Your task to perform on an android device: open app "Mercado Libre" (install if not already installed) and enter user name: "tolerating@yahoo.com" and password: "Kepler" Image 0: 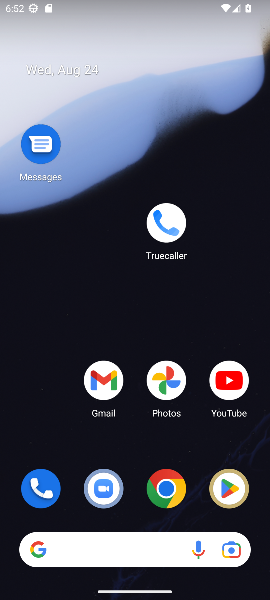
Step 0: drag from (136, 517) to (122, 127)
Your task to perform on an android device: open app "Mercado Libre" (install if not already installed) and enter user name: "tolerating@yahoo.com" and password: "Kepler" Image 1: 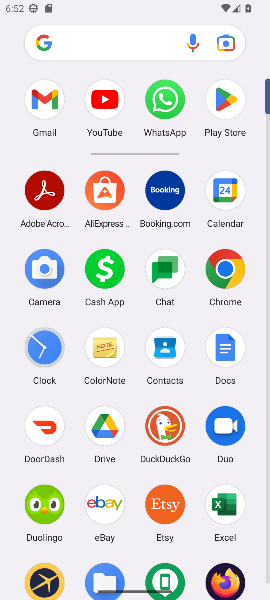
Step 1: click (211, 100)
Your task to perform on an android device: open app "Mercado Libre" (install if not already installed) and enter user name: "tolerating@yahoo.com" and password: "Kepler" Image 2: 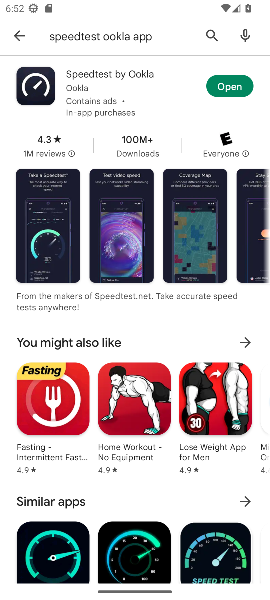
Step 2: click (217, 40)
Your task to perform on an android device: open app "Mercado Libre" (install if not already installed) and enter user name: "tolerating@yahoo.com" and password: "Kepler" Image 3: 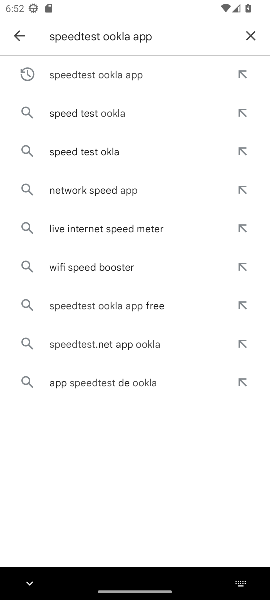
Step 3: click (244, 37)
Your task to perform on an android device: open app "Mercado Libre" (install if not already installed) and enter user name: "tolerating@yahoo.com" and password: "Kepler" Image 4: 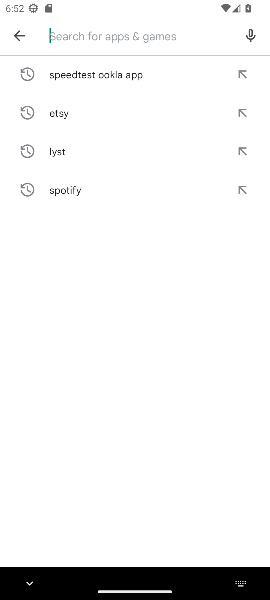
Step 4: type "mercado liber"
Your task to perform on an android device: open app "Mercado Libre" (install if not already installed) and enter user name: "tolerating@yahoo.com" and password: "Kepler" Image 5: 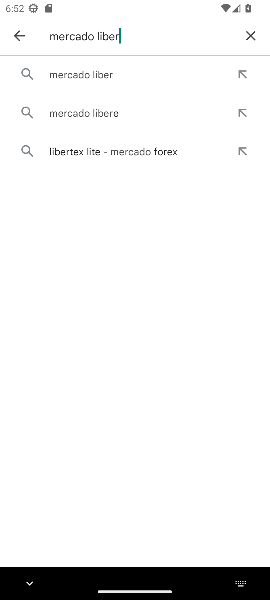
Step 5: click (131, 77)
Your task to perform on an android device: open app "Mercado Libre" (install if not already installed) and enter user name: "tolerating@yahoo.com" and password: "Kepler" Image 6: 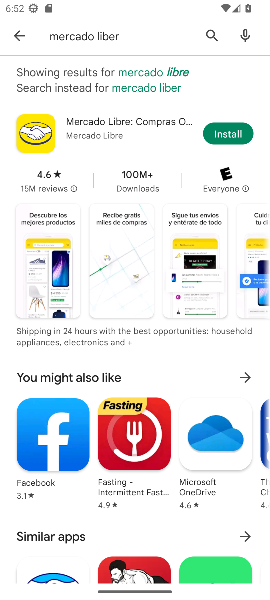
Step 6: click (226, 115)
Your task to perform on an android device: open app "Mercado Libre" (install if not already installed) and enter user name: "tolerating@yahoo.com" and password: "Kepler" Image 7: 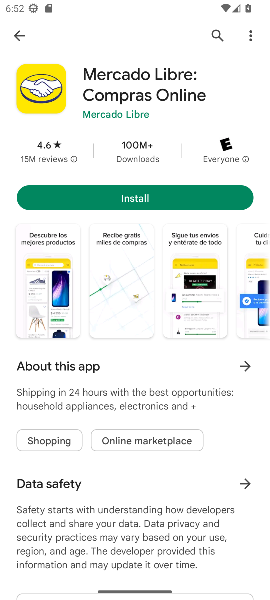
Step 7: click (144, 196)
Your task to perform on an android device: open app "Mercado Libre" (install if not already installed) and enter user name: "tolerating@yahoo.com" and password: "Kepler" Image 8: 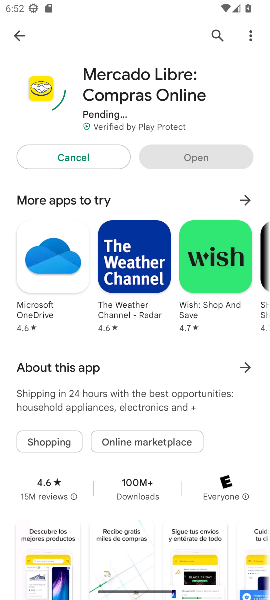
Step 8: task complete